Your task to perform on an android device: visit the assistant section in the google photos Image 0: 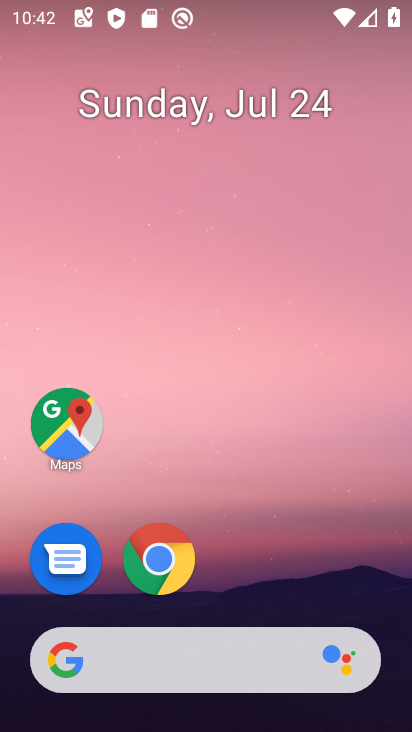
Step 0: drag from (239, 569) to (320, 2)
Your task to perform on an android device: visit the assistant section in the google photos Image 1: 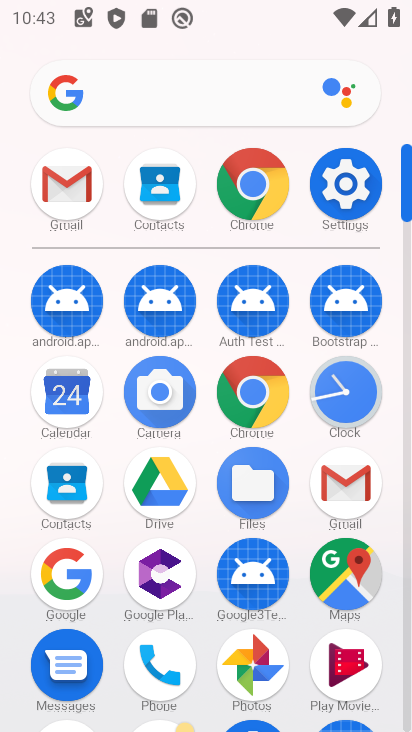
Step 1: click (245, 675)
Your task to perform on an android device: visit the assistant section in the google photos Image 2: 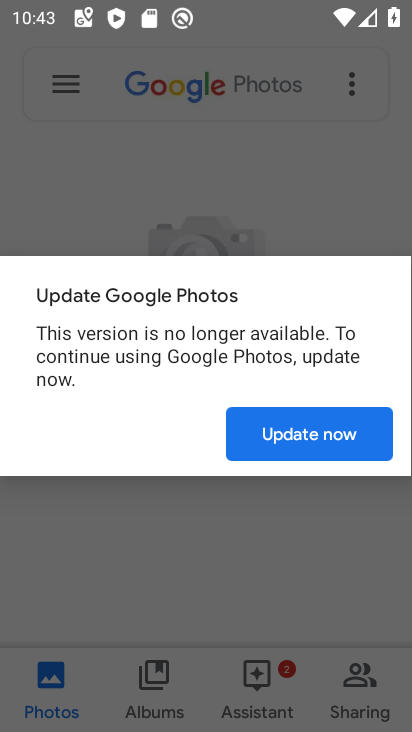
Step 2: press home button
Your task to perform on an android device: visit the assistant section in the google photos Image 3: 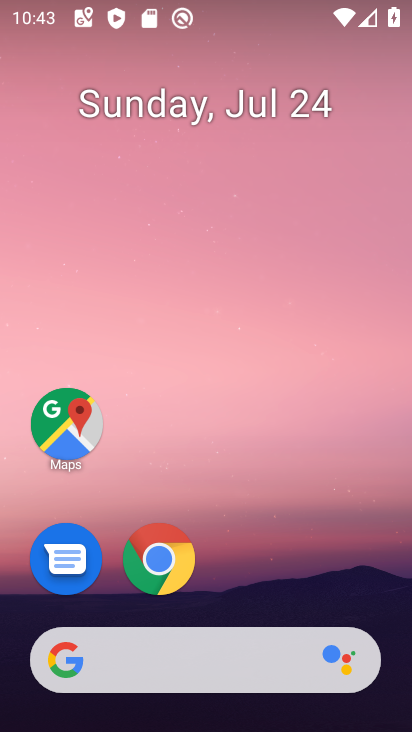
Step 3: drag from (239, 475) to (262, 7)
Your task to perform on an android device: visit the assistant section in the google photos Image 4: 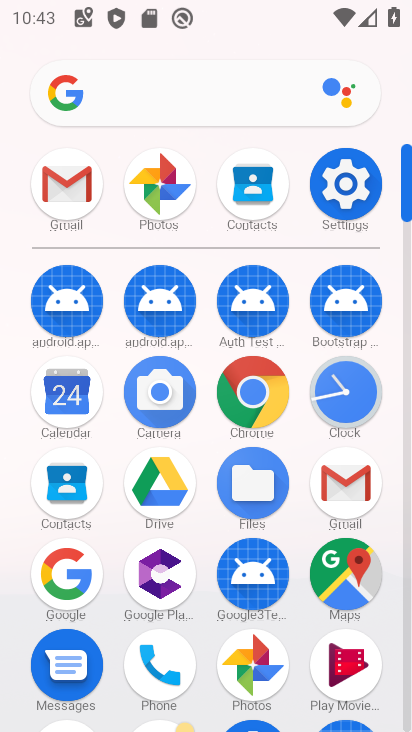
Step 4: click (157, 180)
Your task to perform on an android device: visit the assistant section in the google photos Image 5: 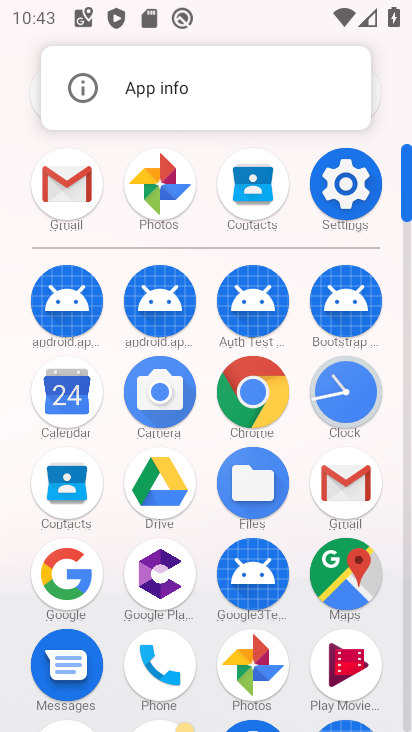
Step 5: click (154, 175)
Your task to perform on an android device: visit the assistant section in the google photos Image 6: 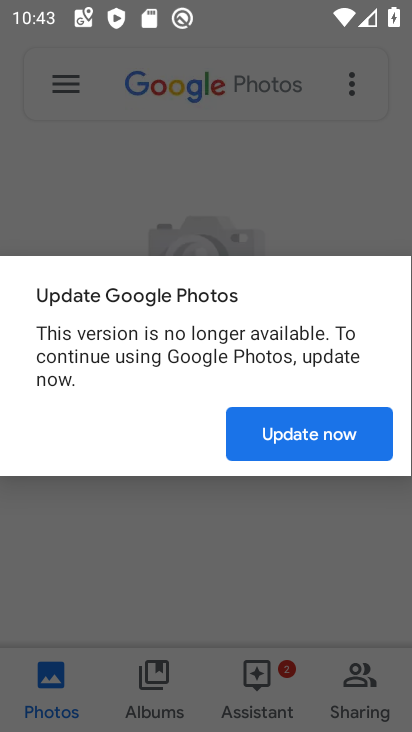
Step 6: click (298, 439)
Your task to perform on an android device: visit the assistant section in the google photos Image 7: 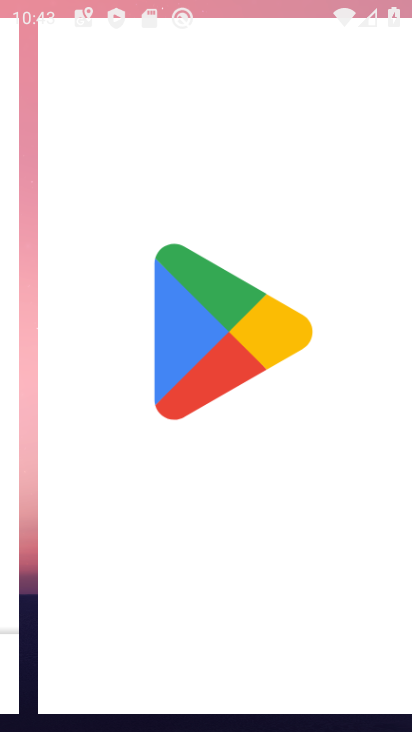
Step 7: click (260, 673)
Your task to perform on an android device: visit the assistant section in the google photos Image 8: 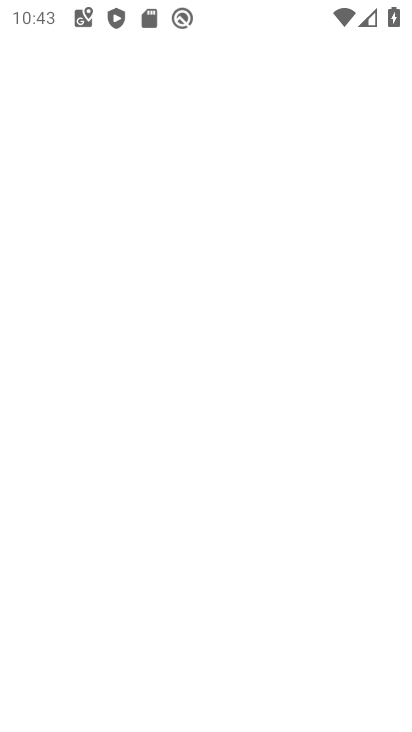
Step 8: press back button
Your task to perform on an android device: visit the assistant section in the google photos Image 9: 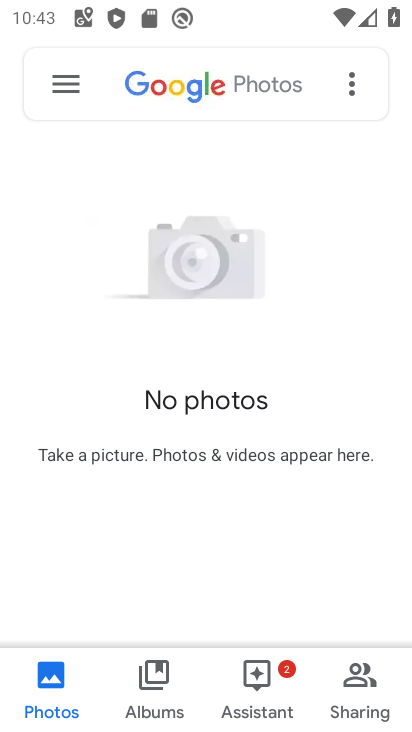
Step 9: click (252, 672)
Your task to perform on an android device: visit the assistant section in the google photos Image 10: 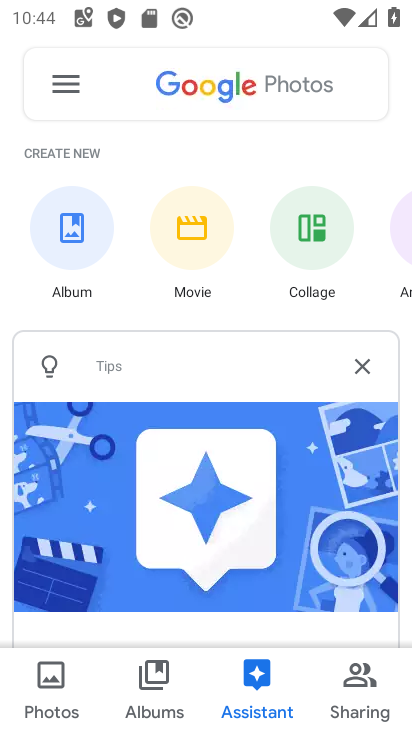
Step 10: task complete